Your task to perform on an android device: delete a single message in the gmail app Image 0: 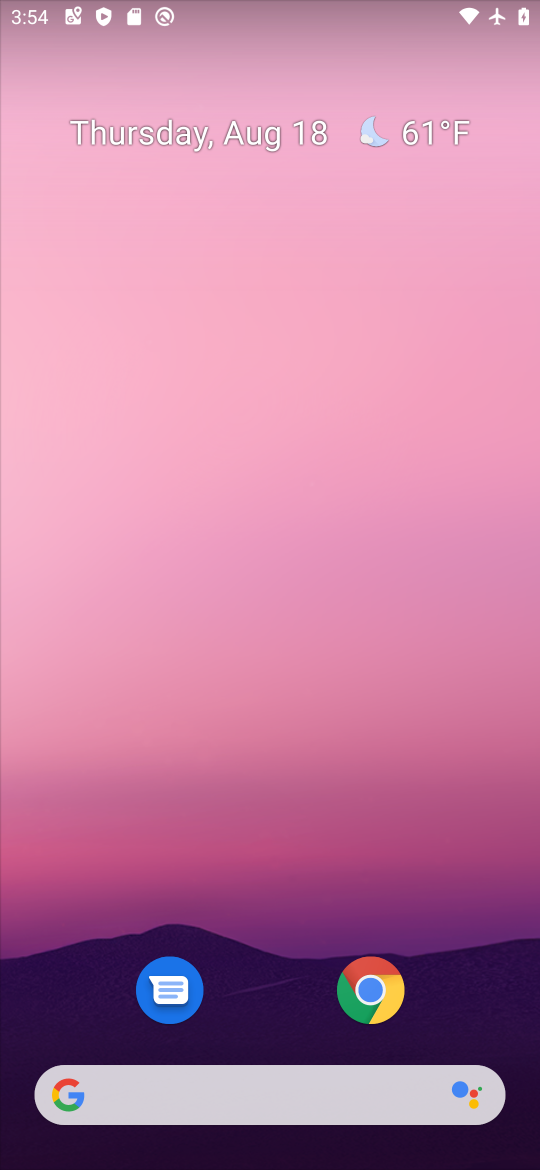
Step 0: drag from (271, 985) to (404, 212)
Your task to perform on an android device: delete a single message in the gmail app Image 1: 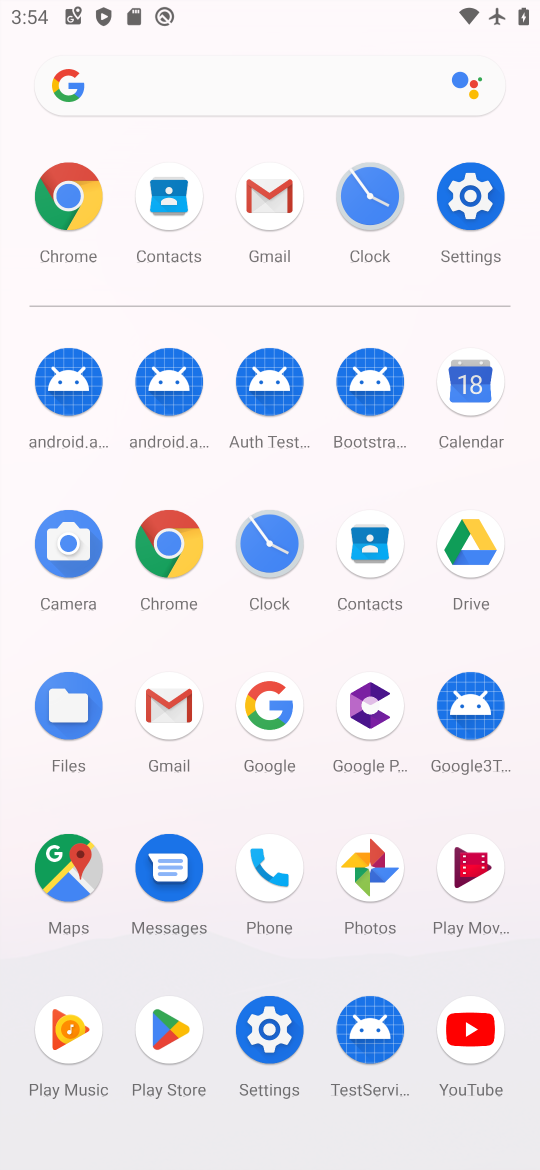
Step 1: click (169, 691)
Your task to perform on an android device: delete a single message in the gmail app Image 2: 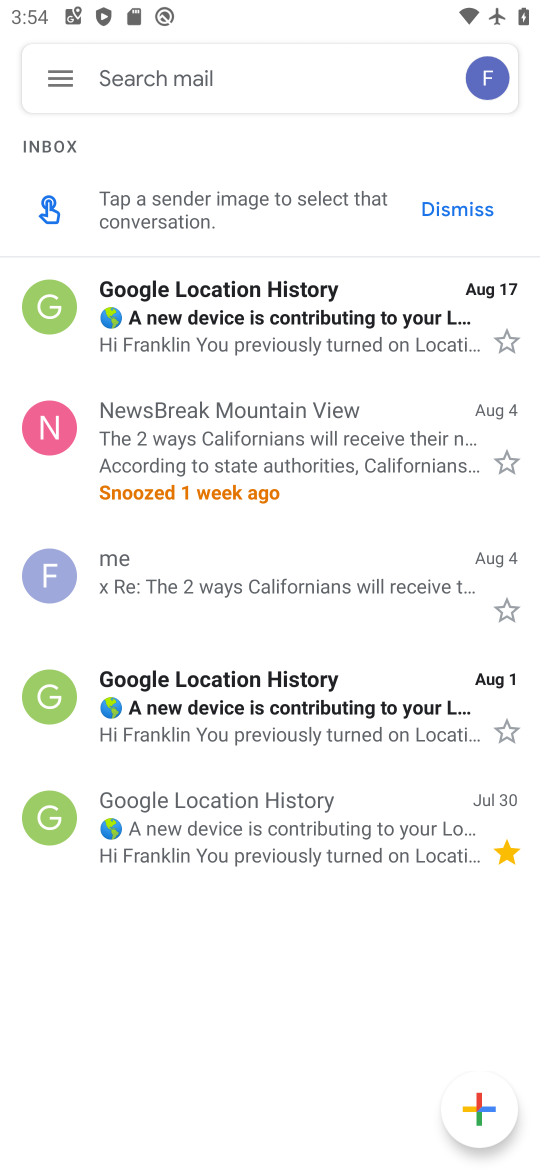
Step 2: drag from (233, 597) to (295, 391)
Your task to perform on an android device: delete a single message in the gmail app Image 3: 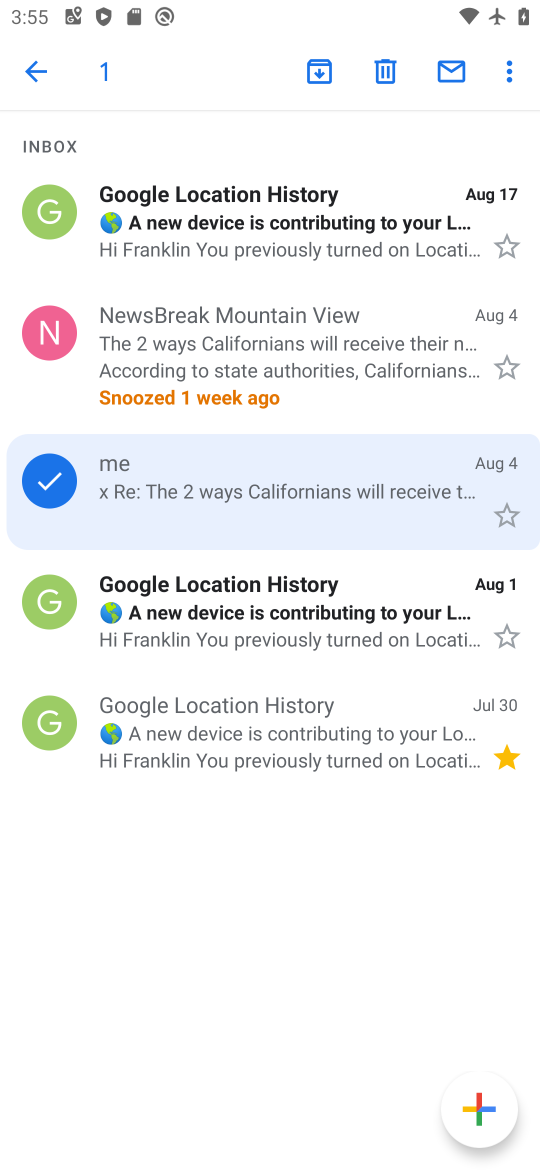
Step 3: click (380, 66)
Your task to perform on an android device: delete a single message in the gmail app Image 4: 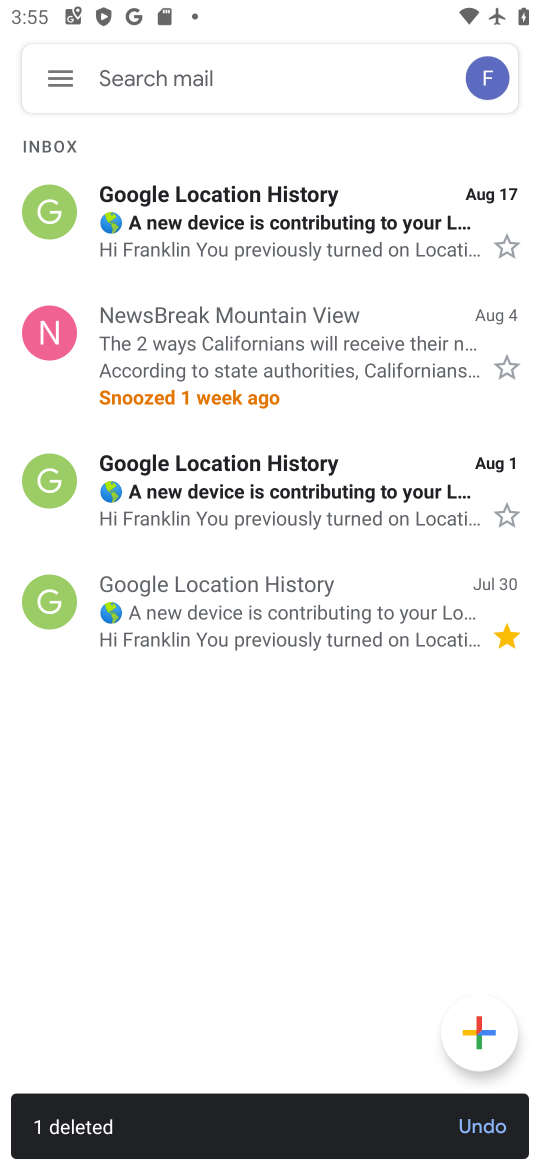
Step 4: task complete